Your task to perform on an android device: Go to ESPN.com Image 0: 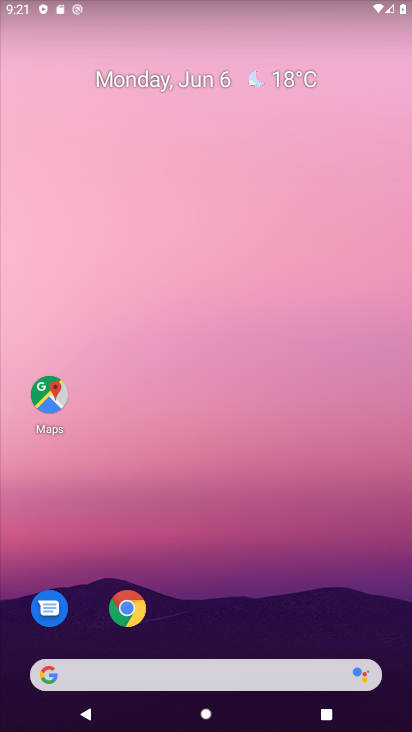
Step 0: click (129, 609)
Your task to perform on an android device: Go to ESPN.com Image 1: 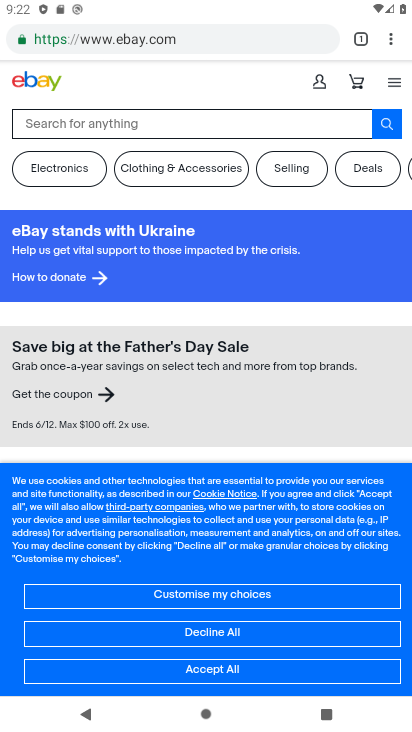
Step 1: click (230, 38)
Your task to perform on an android device: Go to ESPN.com Image 2: 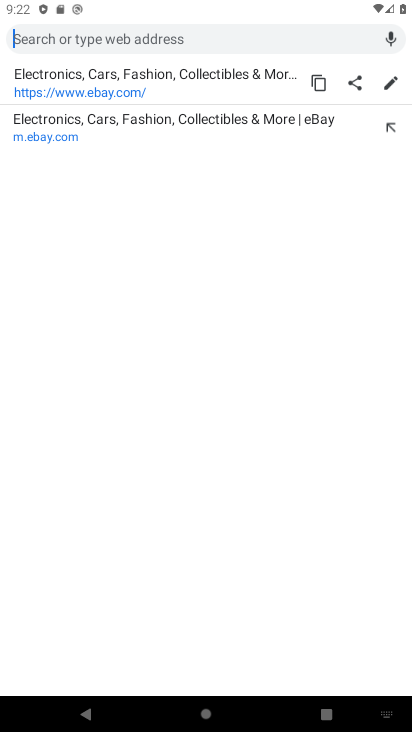
Step 2: click (218, 41)
Your task to perform on an android device: Go to ESPN.com Image 3: 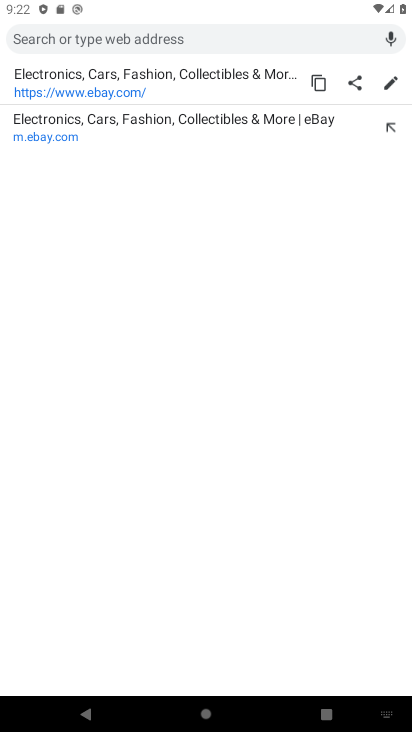
Step 3: type "ESPN.com"
Your task to perform on an android device: Go to ESPN.com Image 4: 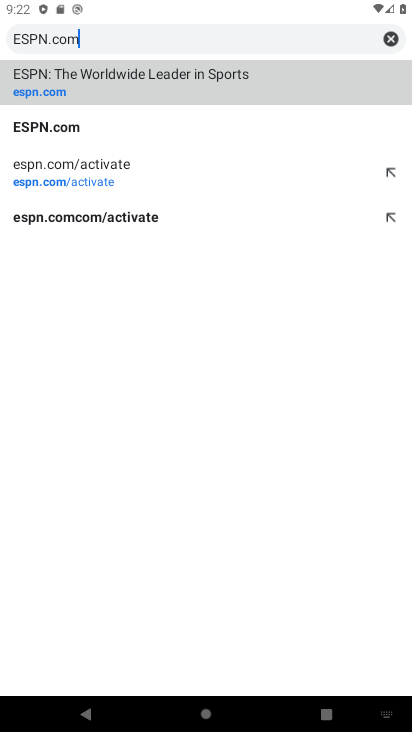
Step 4: click (111, 83)
Your task to perform on an android device: Go to ESPN.com Image 5: 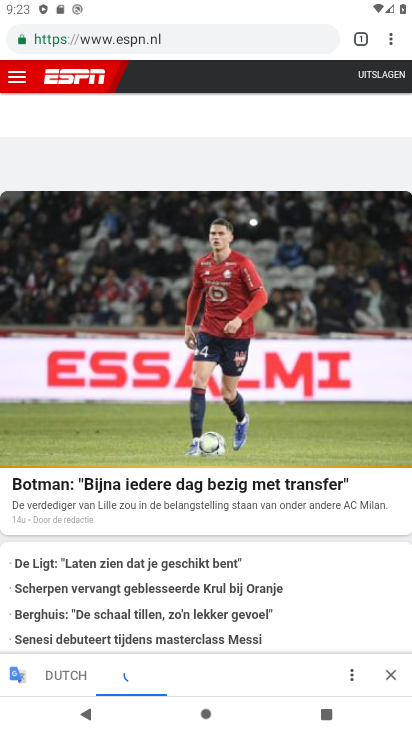
Step 5: task complete